Your task to perform on an android device: add a label to a message in the gmail app Image 0: 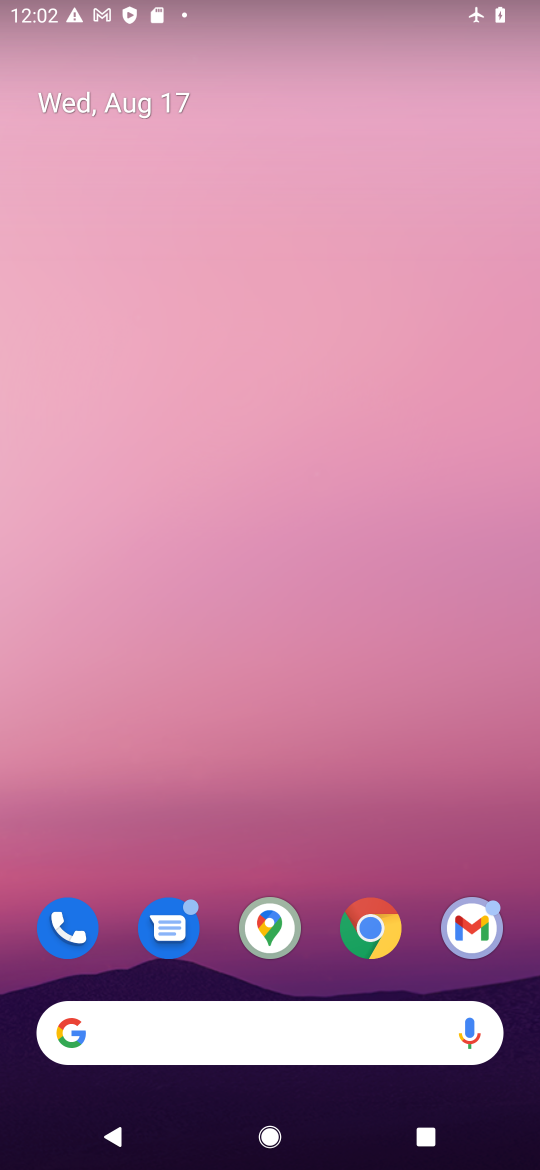
Step 0: click (459, 909)
Your task to perform on an android device: add a label to a message in the gmail app Image 1: 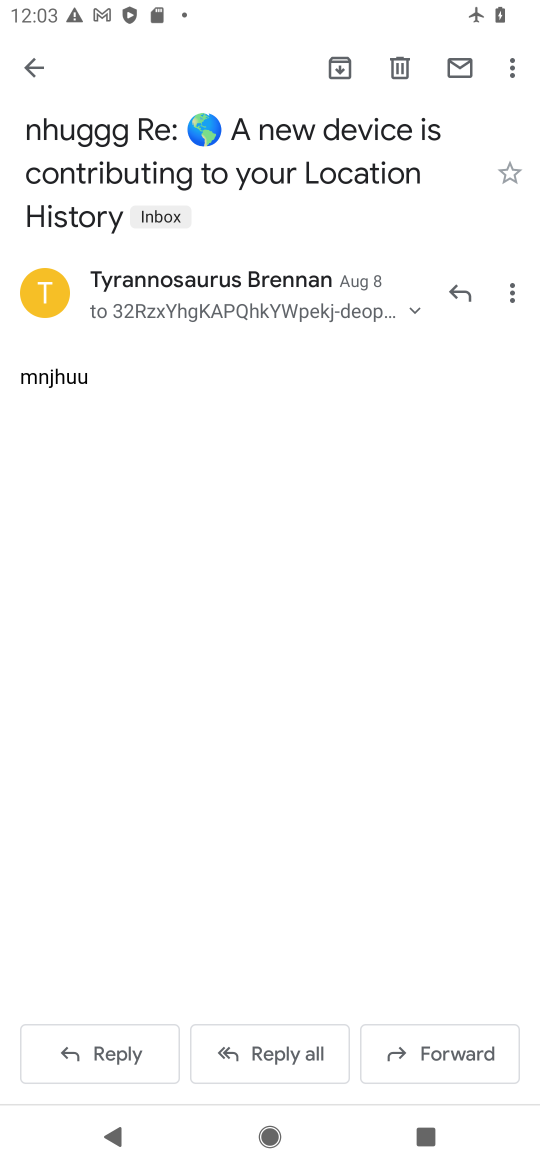
Step 1: click (39, 67)
Your task to perform on an android device: add a label to a message in the gmail app Image 2: 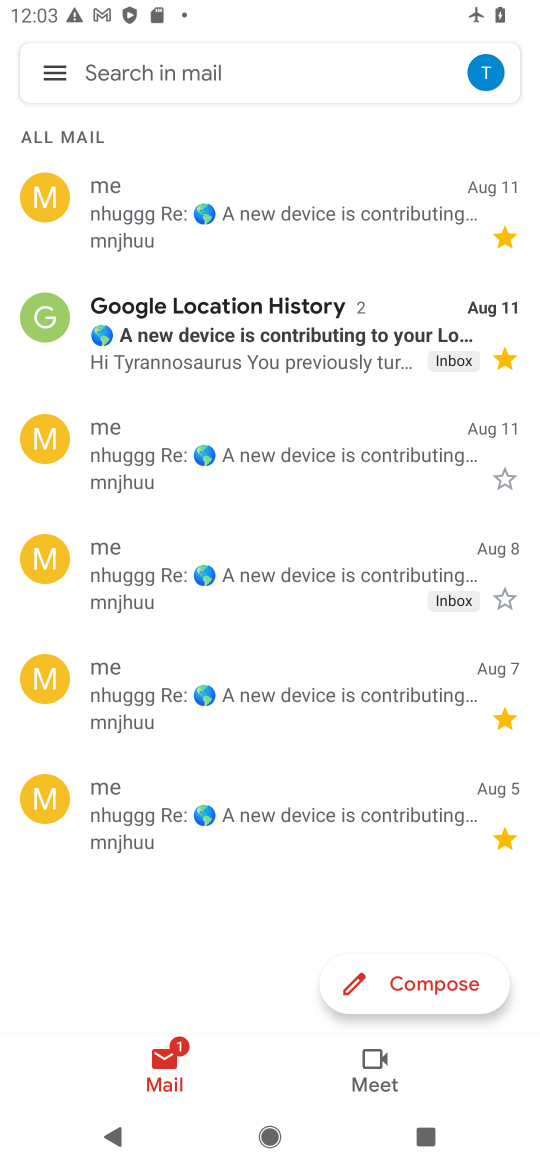
Step 2: click (165, 617)
Your task to perform on an android device: add a label to a message in the gmail app Image 3: 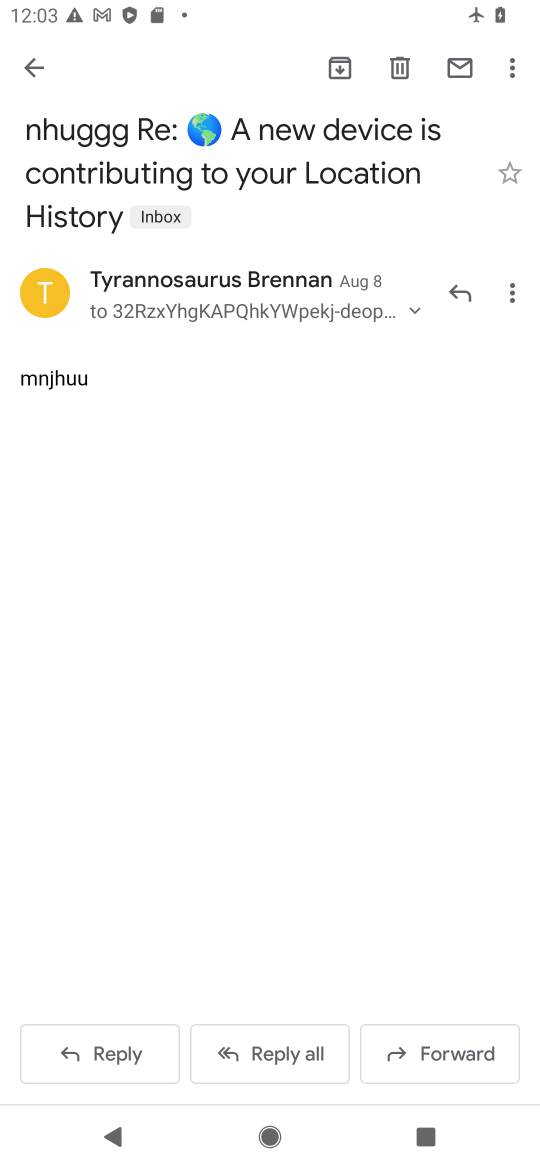
Step 3: click (515, 71)
Your task to perform on an android device: add a label to a message in the gmail app Image 4: 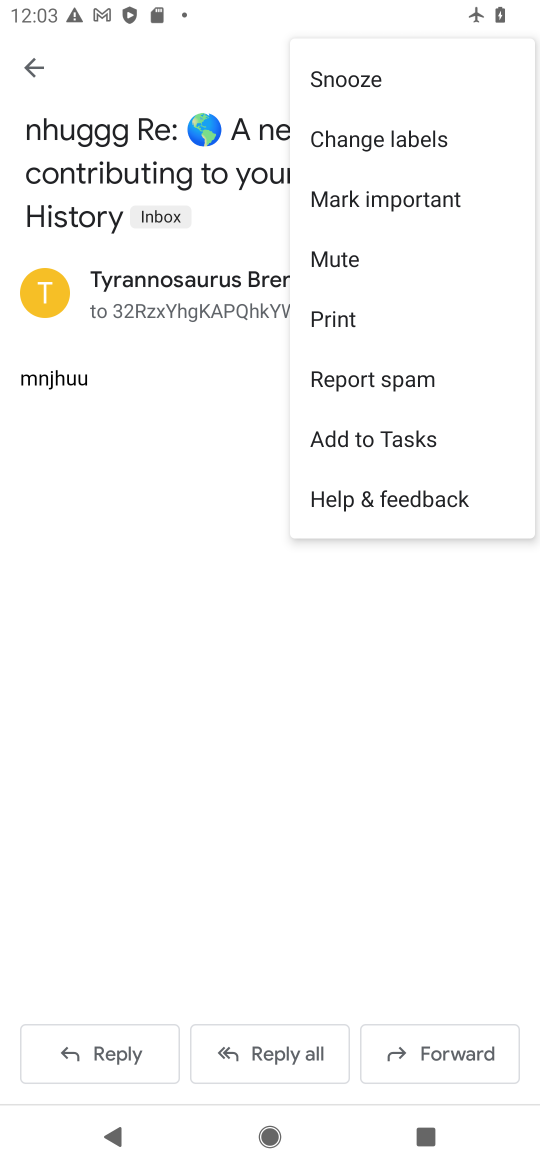
Step 4: click (403, 151)
Your task to perform on an android device: add a label to a message in the gmail app Image 5: 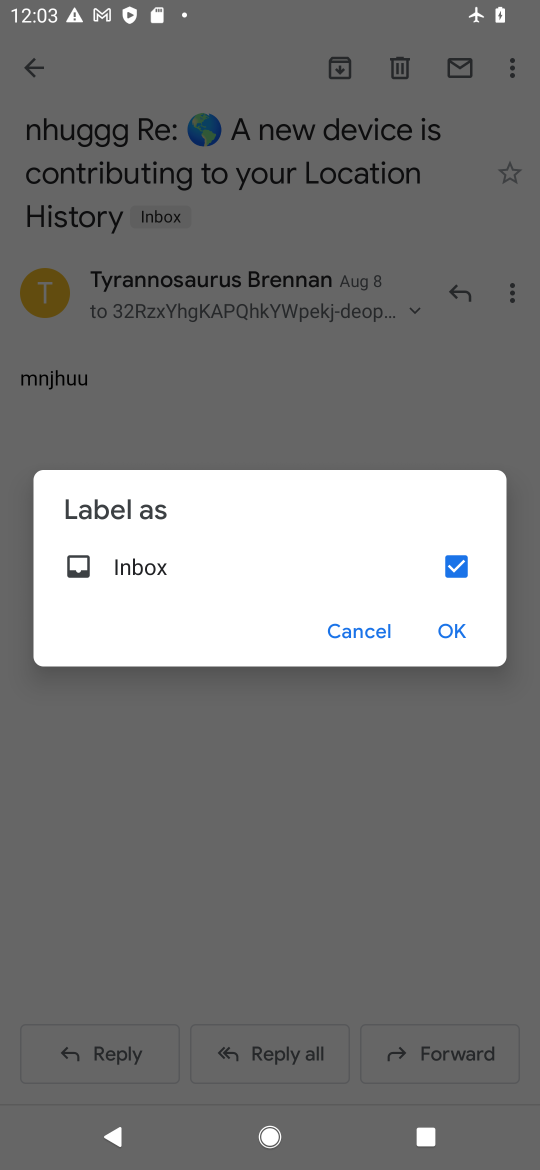
Step 5: task complete